Your task to perform on an android device: toggle translation in the chrome app Image 0: 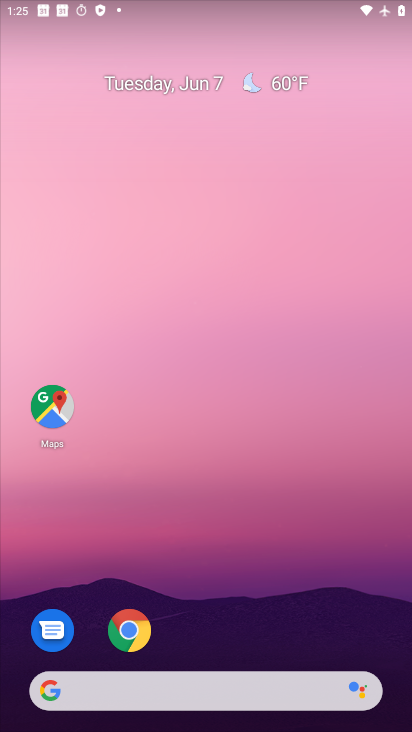
Step 0: drag from (343, 635) to (334, 116)
Your task to perform on an android device: toggle translation in the chrome app Image 1: 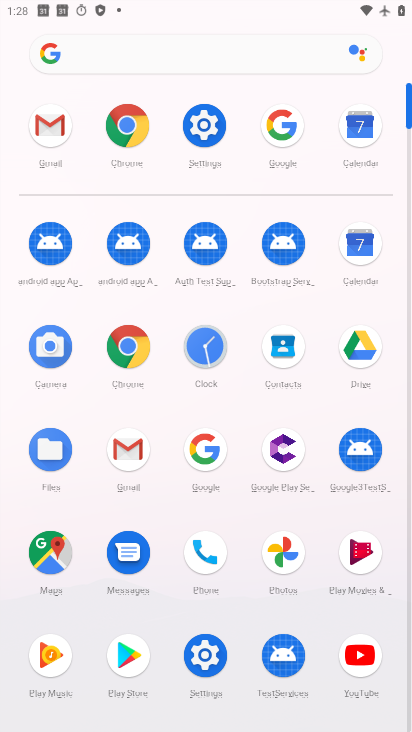
Step 1: click (129, 362)
Your task to perform on an android device: toggle translation in the chrome app Image 2: 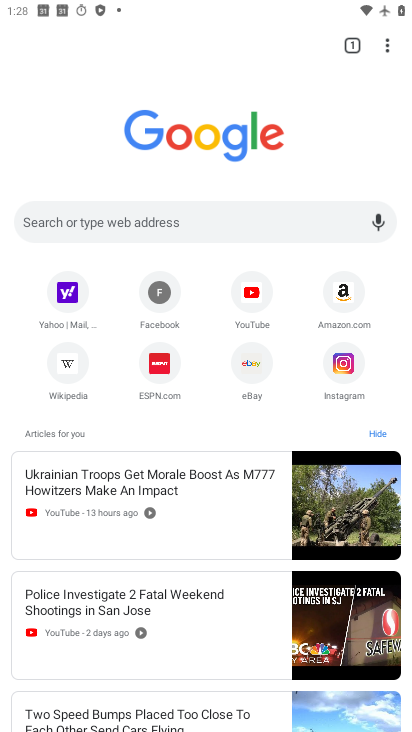
Step 2: click (389, 43)
Your task to perform on an android device: toggle translation in the chrome app Image 3: 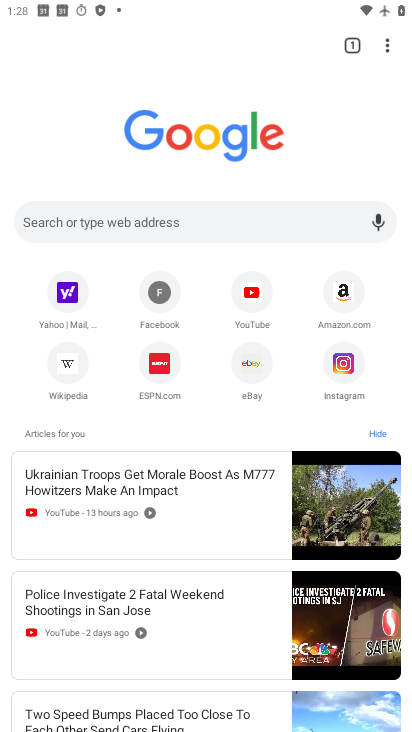
Step 3: click (388, 43)
Your task to perform on an android device: toggle translation in the chrome app Image 4: 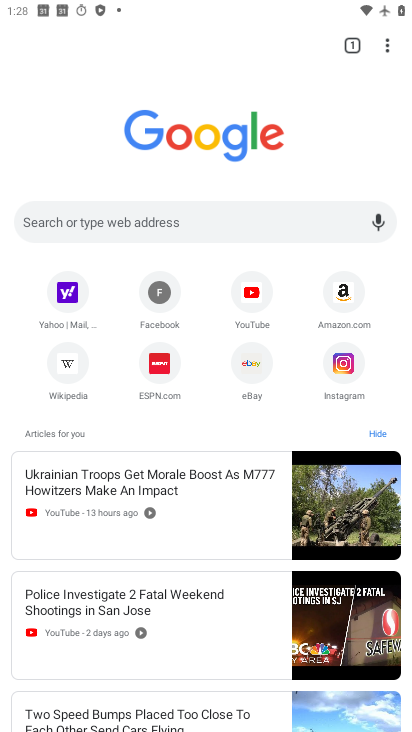
Step 4: click (385, 43)
Your task to perform on an android device: toggle translation in the chrome app Image 5: 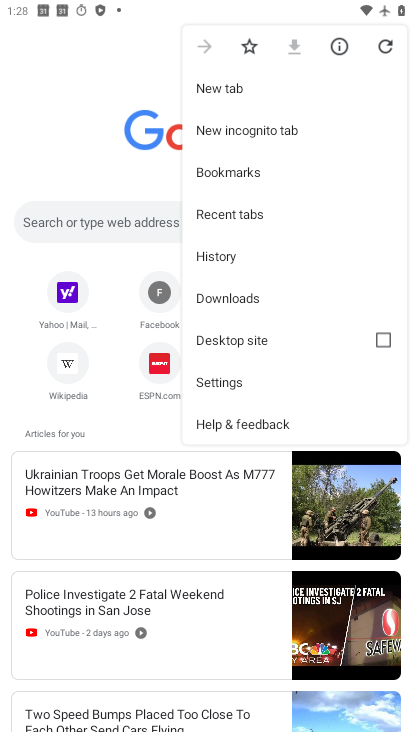
Step 5: click (226, 383)
Your task to perform on an android device: toggle translation in the chrome app Image 6: 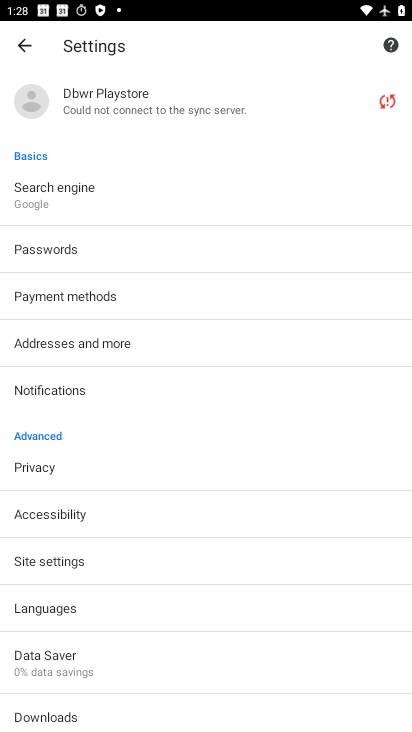
Step 6: click (91, 616)
Your task to perform on an android device: toggle translation in the chrome app Image 7: 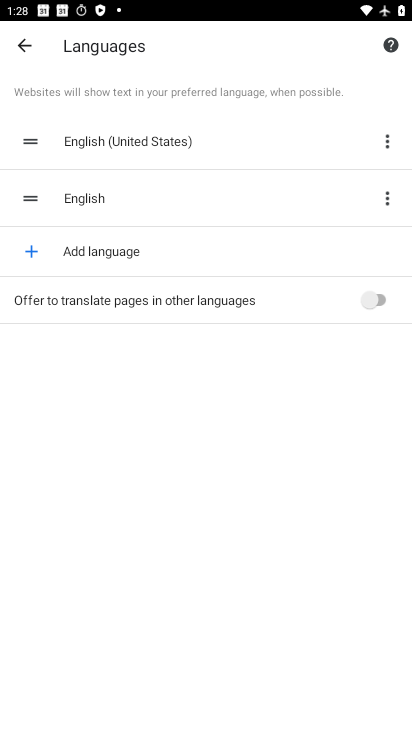
Step 7: click (364, 288)
Your task to perform on an android device: toggle translation in the chrome app Image 8: 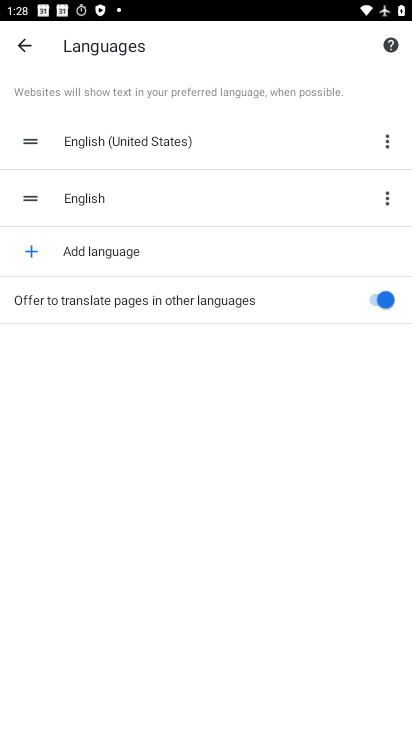
Step 8: task complete